Your task to perform on an android device: Show me the alarms in the clock app Image 0: 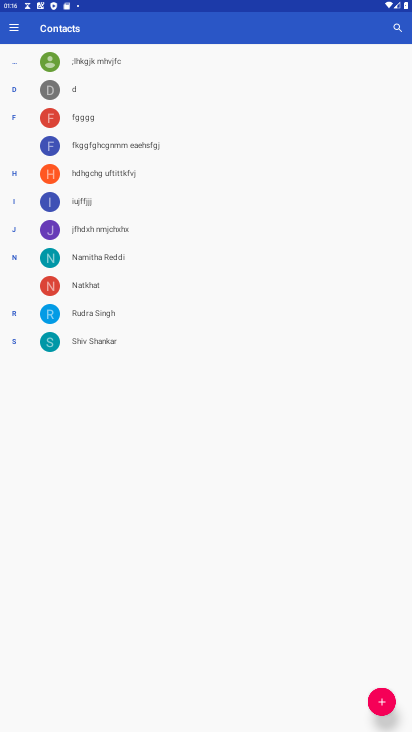
Step 0: press home button
Your task to perform on an android device: Show me the alarms in the clock app Image 1: 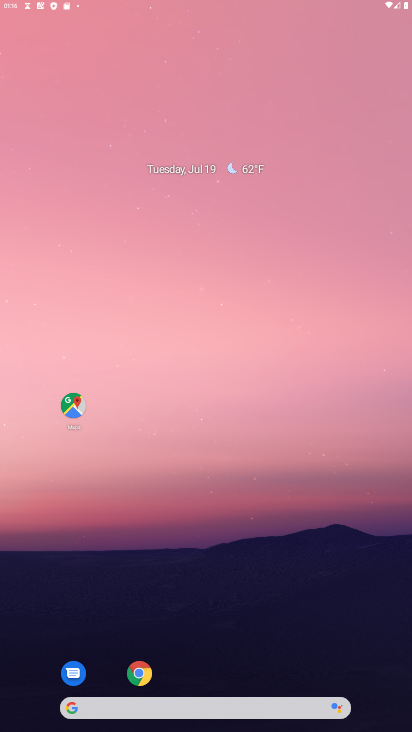
Step 1: drag from (154, 571) to (178, 129)
Your task to perform on an android device: Show me the alarms in the clock app Image 2: 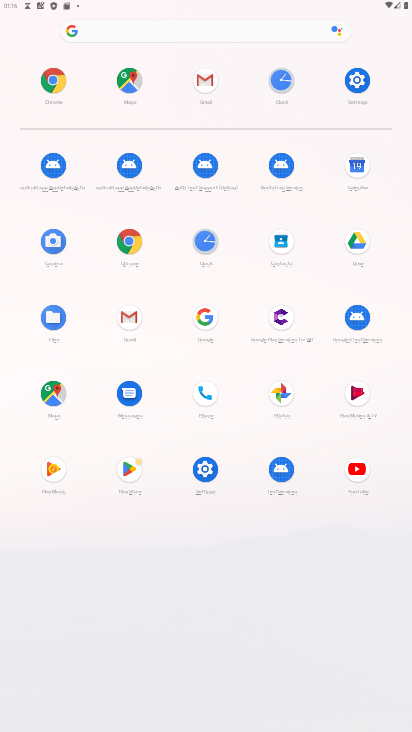
Step 2: click (206, 244)
Your task to perform on an android device: Show me the alarms in the clock app Image 3: 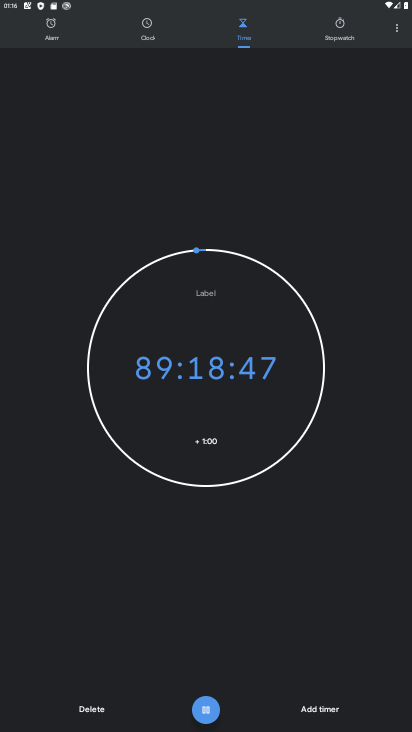
Step 3: click (50, 28)
Your task to perform on an android device: Show me the alarms in the clock app Image 4: 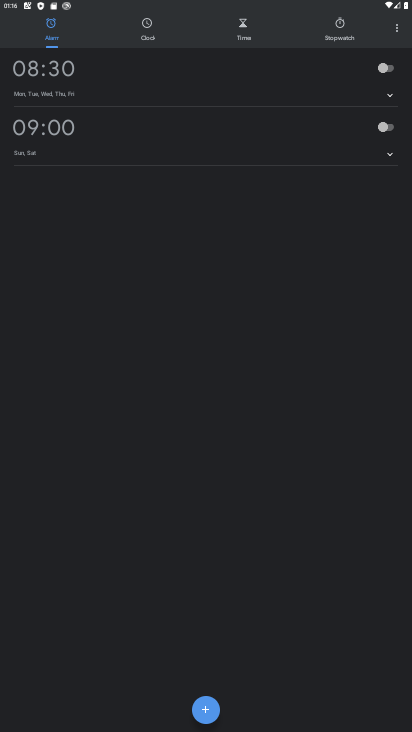
Step 4: task complete